Your task to perform on an android device: Open Chrome and go to the settings page Image 0: 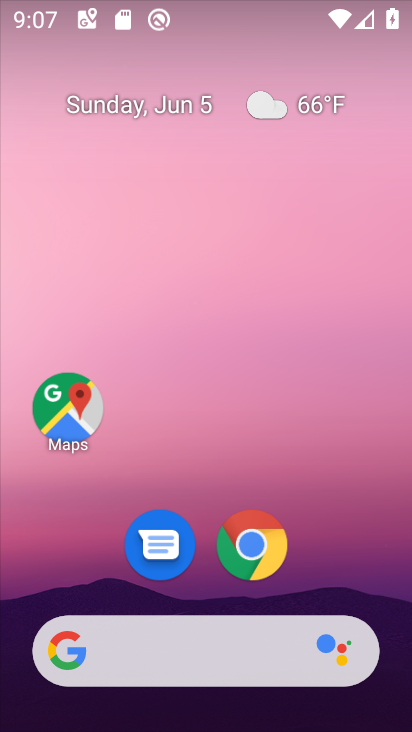
Step 0: drag from (347, 572) to (368, 188)
Your task to perform on an android device: Open Chrome and go to the settings page Image 1: 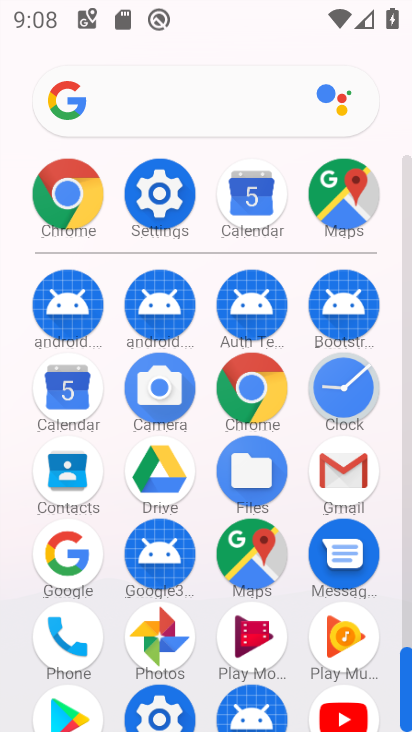
Step 1: click (268, 395)
Your task to perform on an android device: Open Chrome and go to the settings page Image 2: 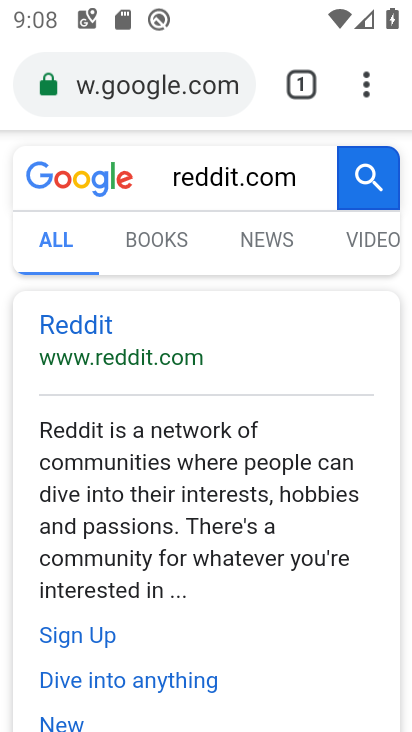
Step 2: drag from (336, 623) to (343, 438)
Your task to perform on an android device: Open Chrome and go to the settings page Image 3: 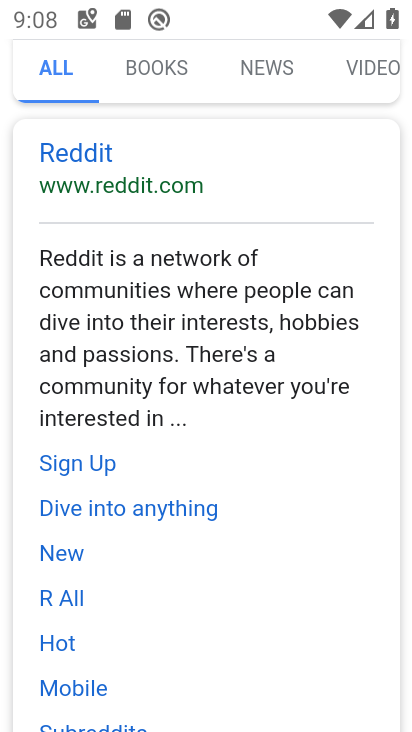
Step 3: drag from (359, 222) to (363, 464)
Your task to perform on an android device: Open Chrome and go to the settings page Image 4: 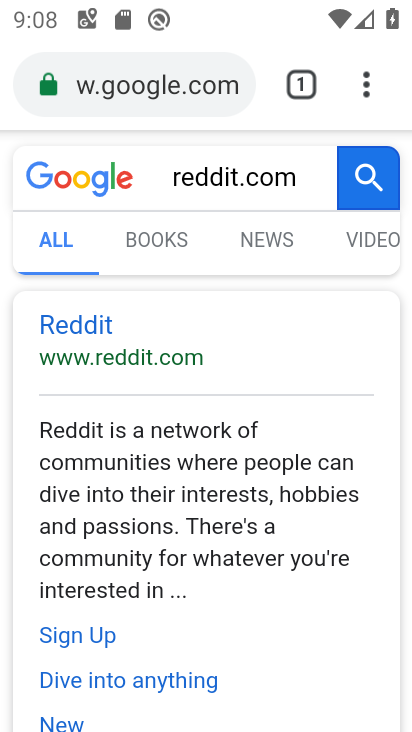
Step 4: click (368, 91)
Your task to perform on an android device: Open Chrome and go to the settings page Image 5: 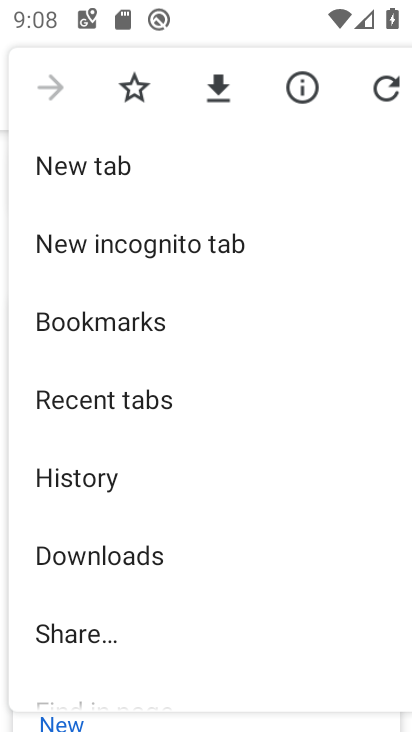
Step 5: drag from (303, 442) to (306, 320)
Your task to perform on an android device: Open Chrome and go to the settings page Image 6: 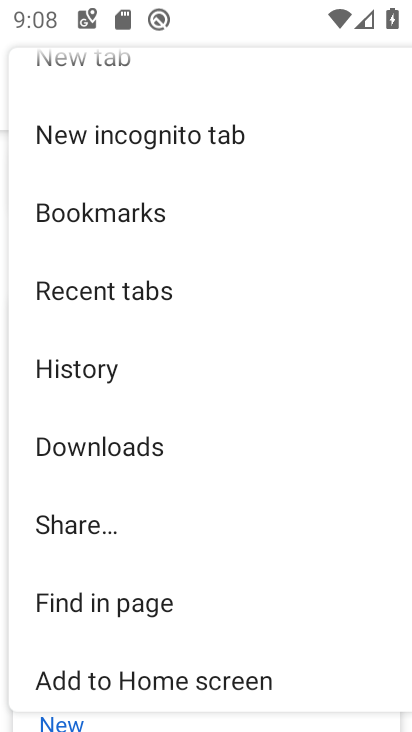
Step 6: drag from (303, 526) to (312, 345)
Your task to perform on an android device: Open Chrome and go to the settings page Image 7: 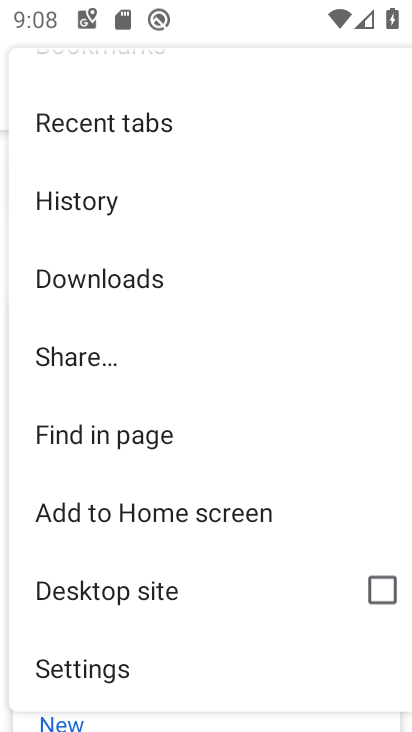
Step 7: drag from (306, 576) to (309, 418)
Your task to perform on an android device: Open Chrome and go to the settings page Image 8: 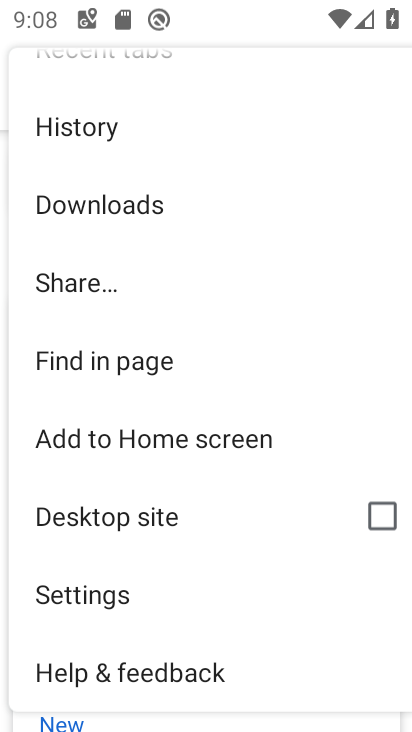
Step 8: click (172, 606)
Your task to perform on an android device: Open Chrome and go to the settings page Image 9: 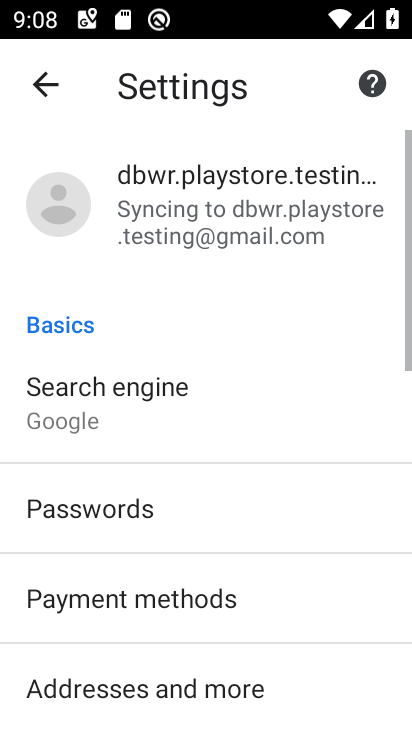
Step 9: task complete